Your task to perform on an android device: change text size in settings app Image 0: 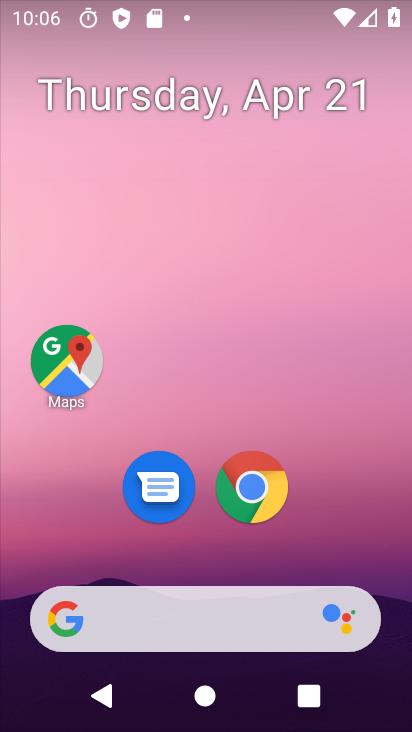
Step 0: drag from (375, 536) to (322, 172)
Your task to perform on an android device: change text size in settings app Image 1: 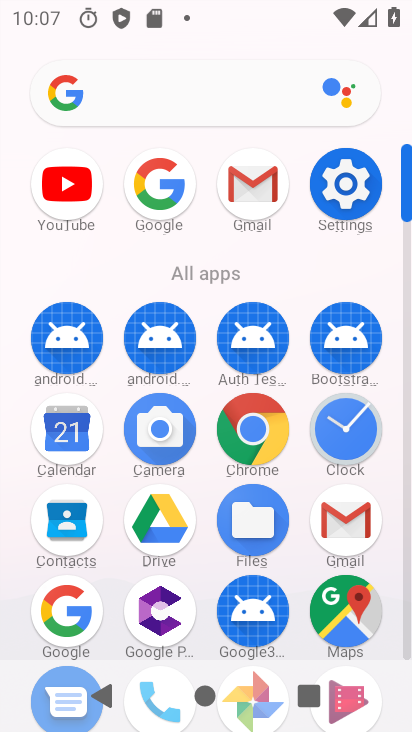
Step 1: click (338, 193)
Your task to perform on an android device: change text size in settings app Image 2: 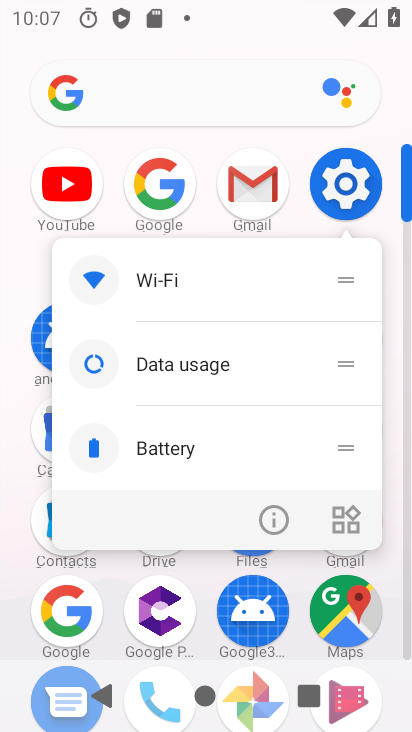
Step 2: click (338, 193)
Your task to perform on an android device: change text size in settings app Image 3: 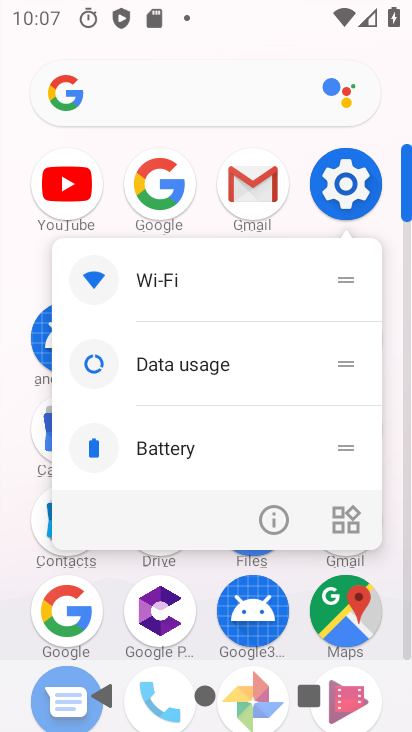
Step 3: click (345, 185)
Your task to perform on an android device: change text size in settings app Image 4: 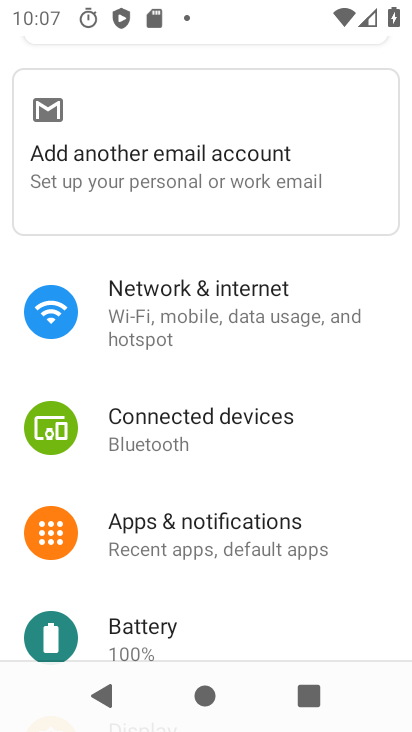
Step 4: click (364, 371)
Your task to perform on an android device: change text size in settings app Image 5: 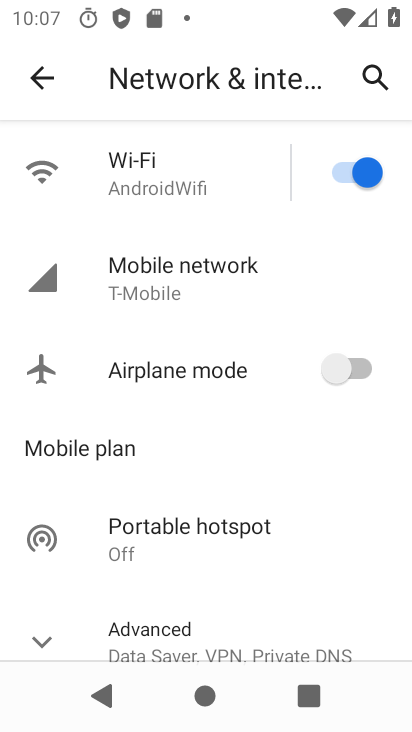
Step 5: click (252, 221)
Your task to perform on an android device: change text size in settings app Image 6: 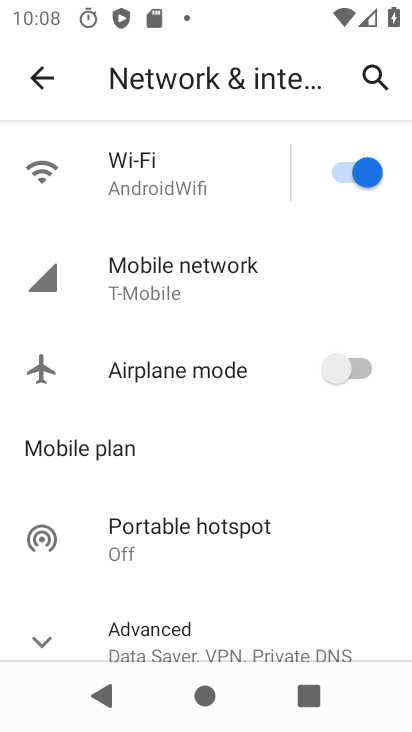
Step 6: drag from (260, 534) to (248, 341)
Your task to perform on an android device: change text size in settings app Image 7: 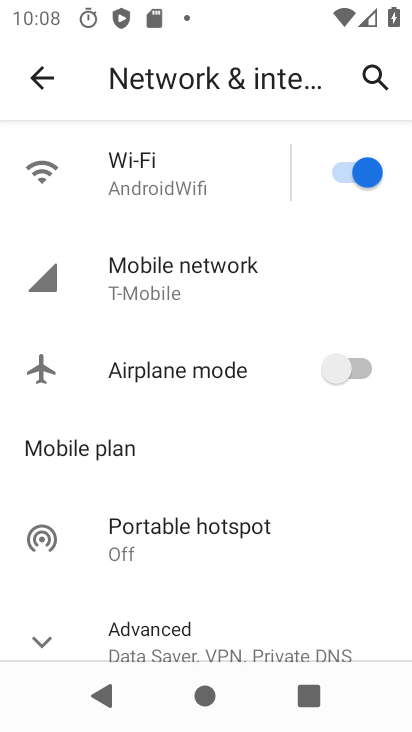
Step 7: click (42, 73)
Your task to perform on an android device: change text size in settings app Image 8: 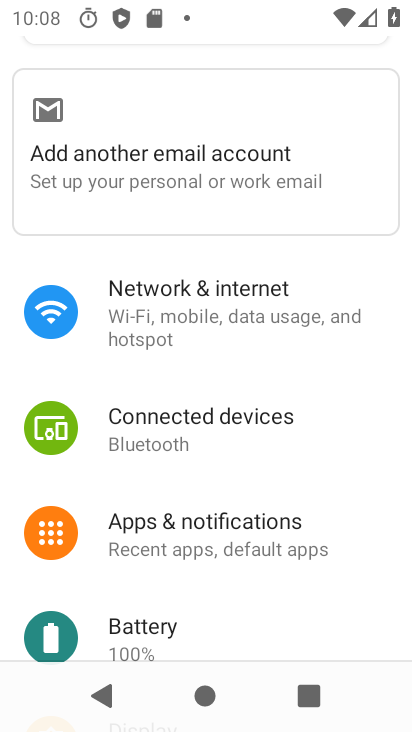
Step 8: drag from (344, 598) to (341, 247)
Your task to perform on an android device: change text size in settings app Image 9: 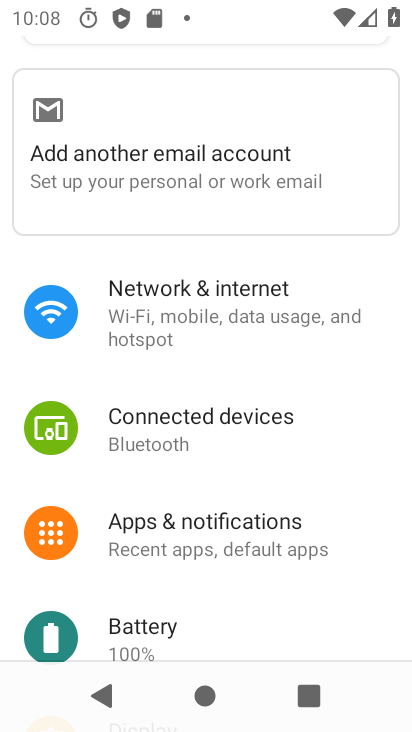
Step 9: drag from (359, 512) to (353, 362)
Your task to perform on an android device: change text size in settings app Image 10: 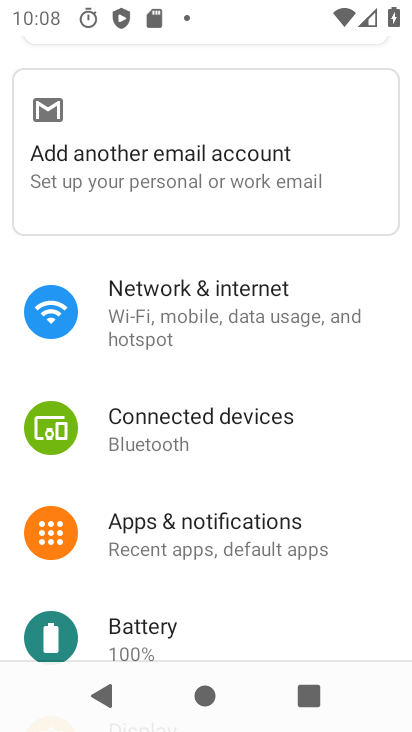
Step 10: drag from (357, 446) to (359, 271)
Your task to perform on an android device: change text size in settings app Image 11: 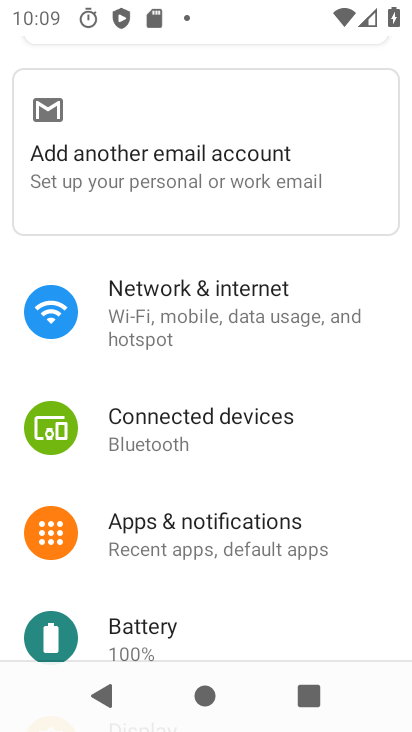
Step 11: drag from (331, 604) to (323, 333)
Your task to perform on an android device: change text size in settings app Image 12: 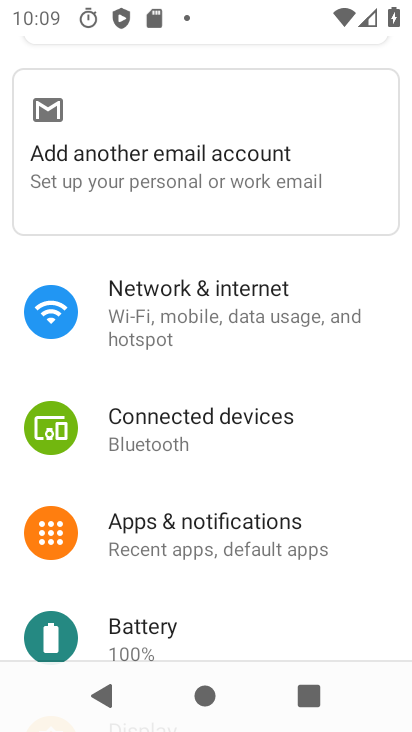
Step 12: drag from (354, 499) to (371, 381)
Your task to perform on an android device: change text size in settings app Image 13: 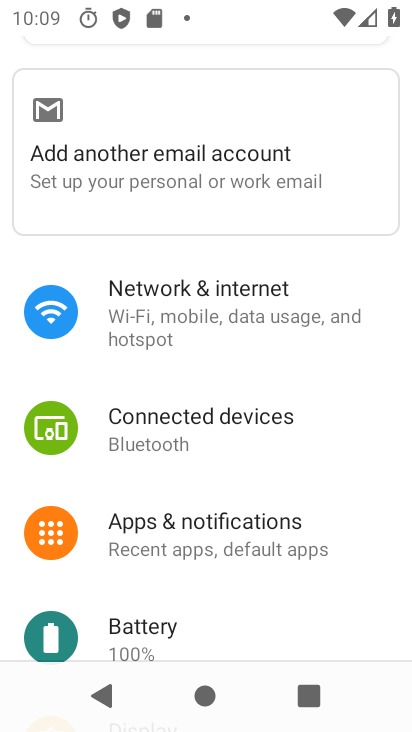
Step 13: drag from (362, 622) to (367, 308)
Your task to perform on an android device: change text size in settings app Image 14: 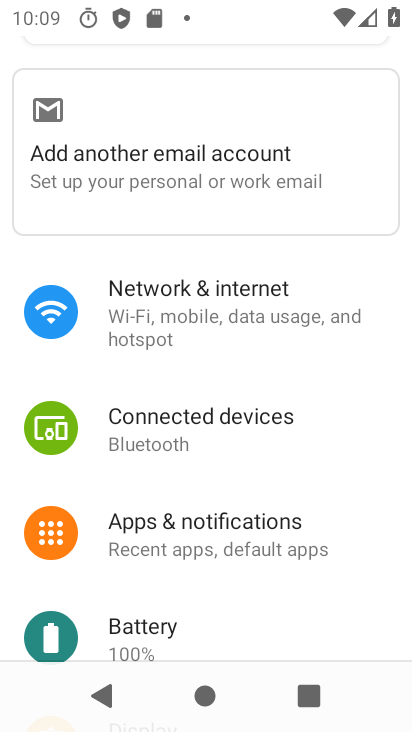
Step 14: drag from (350, 602) to (362, 303)
Your task to perform on an android device: change text size in settings app Image 15: 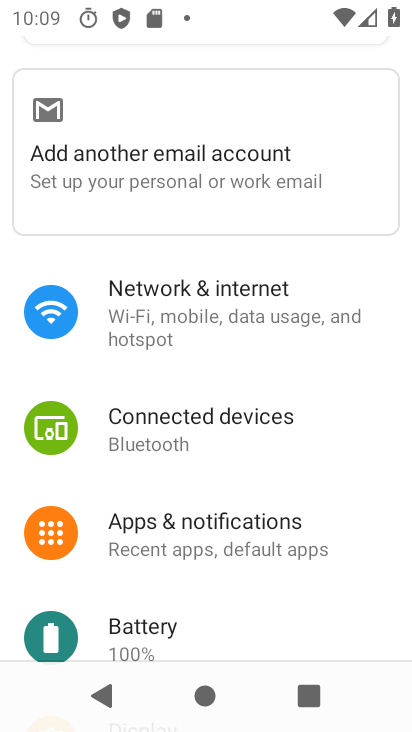
Step 15: drag from (371, 490) to (379, 351)
Your task to perform on an android device: change text size in settings app Image 16: 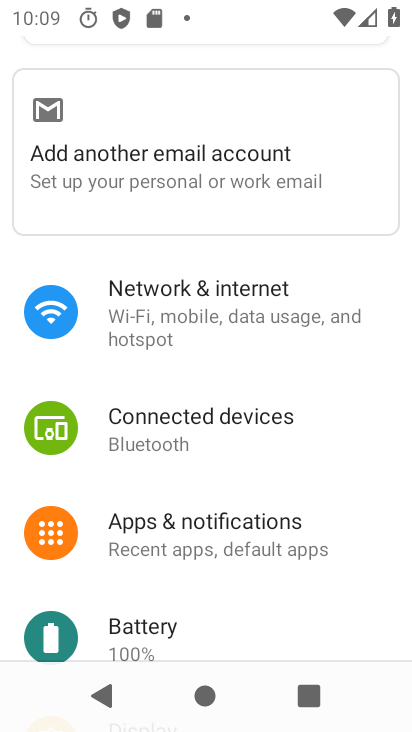
Step 16: drag from (350, 229) to (348, 170)
Your task to perform on an android device: change text size in settings app Image 17: 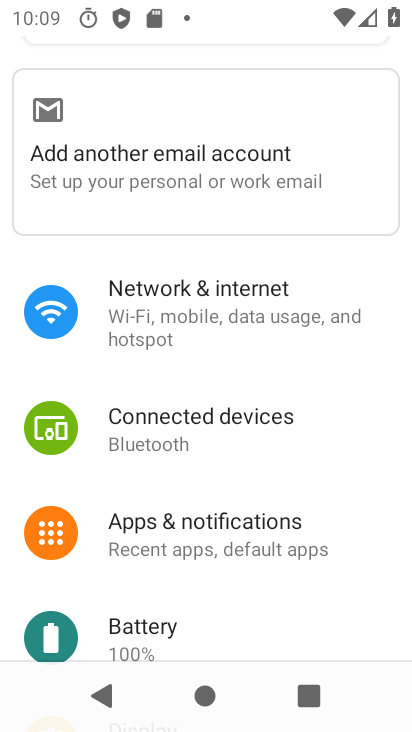
Step 17: drag from (365, 606) to (371, 318)
Your task to perform on an android device: change text size in settings app Image 18: 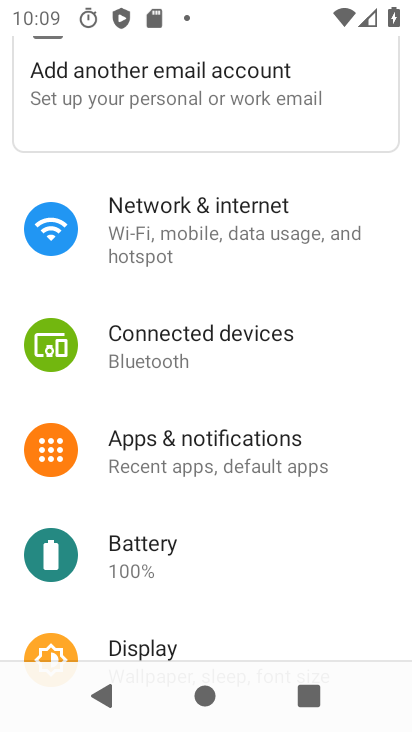
Step 18: drag from (353, 613) to (336, 264)
Your task to perform on an android device: change text size in settings app Image 19: 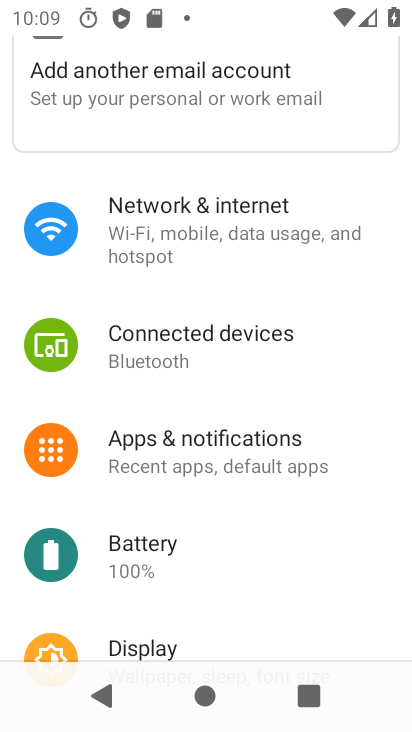
Step 19: drag from (355, 398) to (355, 323)
Your task to perform on an android device: change text size in settings app Image 20: 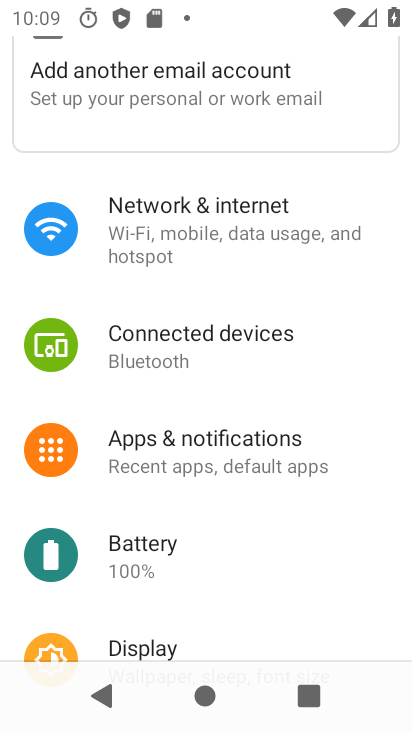
Step 20: drag from (362, 623) to (382, 275)
Your task to perform on an android device: change text size in settings app Image 21: 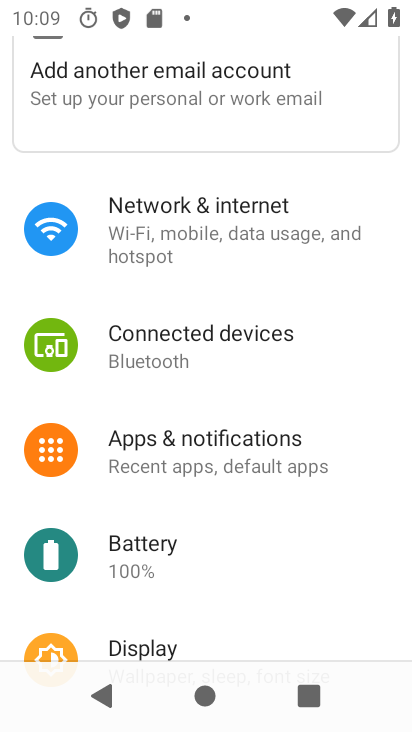
Step 21: click (128, 637)
Your task to perform on an android device: change text size in settings app Image 22: 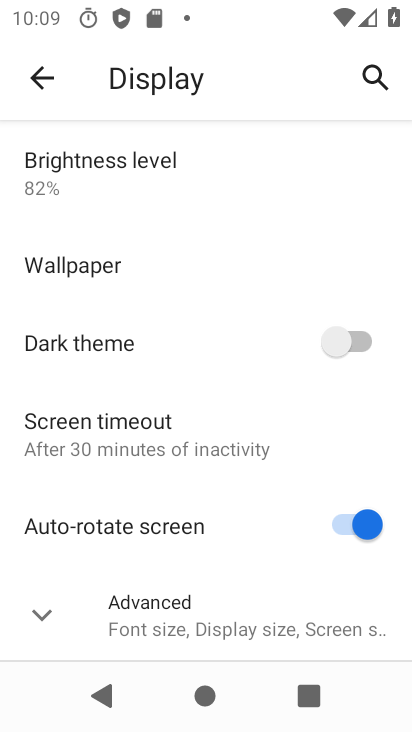
Step 22: click (107, 620)
Your task to perform on an android device: change text size in settings app Image 23: 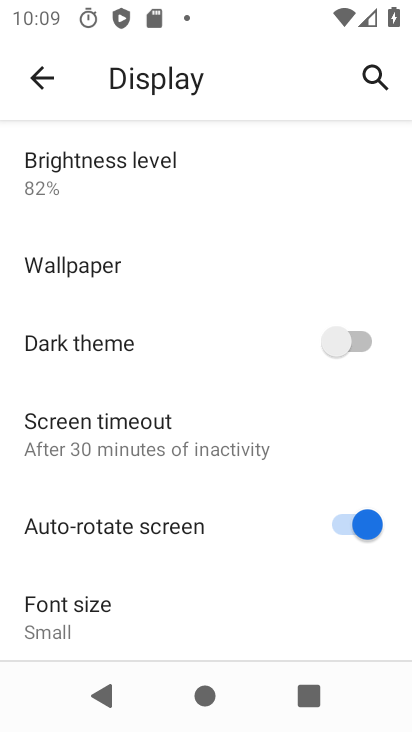
Step 23: click (62, 607)
Your task to perform on an android device: change text size in settings app Image 24: 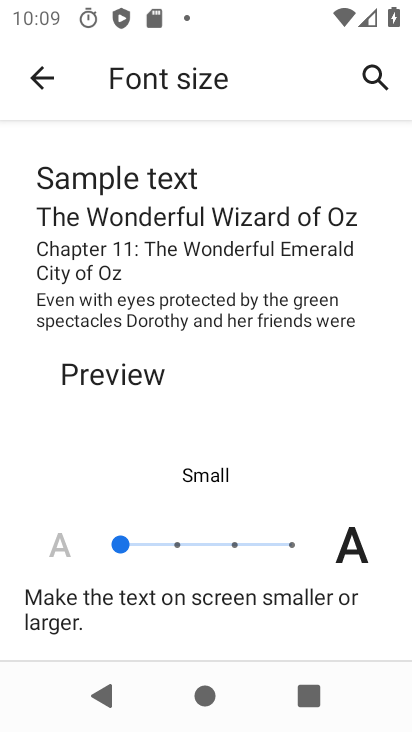
Step 24: click (171, 540)
Your task to perform on an android device: change text size in settings app Image 25: 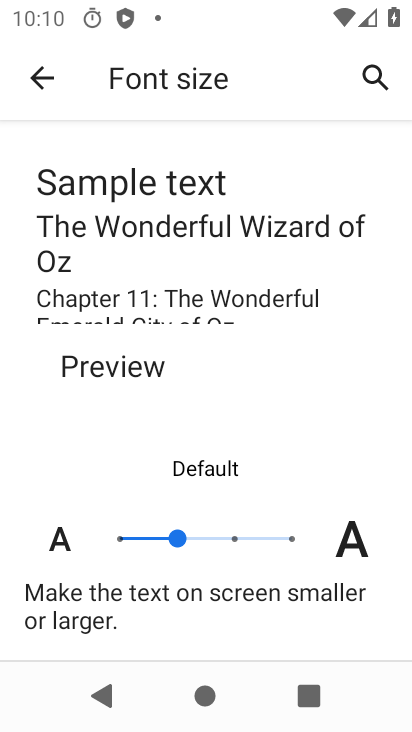
Step 25: click (210, 538)
Your task to perform on an android device: change text size in settings app Image 26: 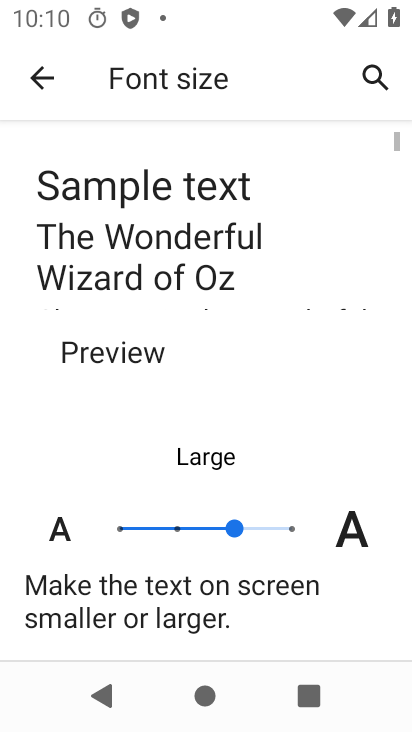
Step 26: task complete